Your task to perform on an android device: open chrome privacy settings Image 0: 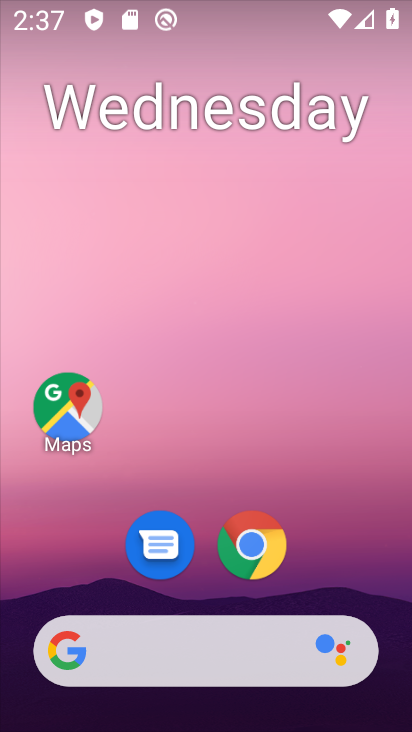
Step 0: press home button
Your task to perform on an android device: open chrome privacy settings Image 1: 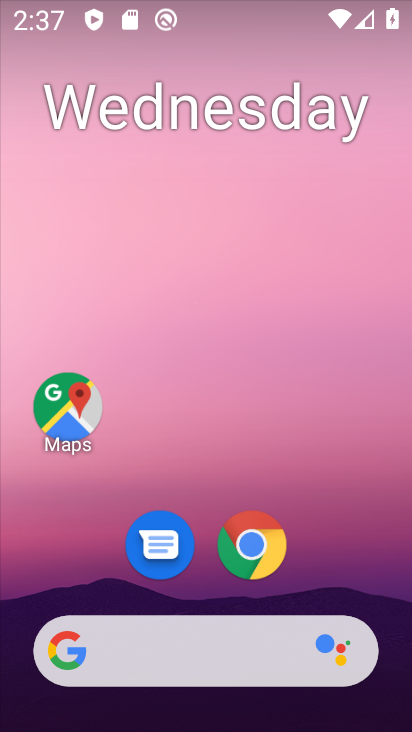
Step 1: drag from (284, 713) to (288, 279)
Your task to perform on an android device: open chrome privacy settings Image 2: 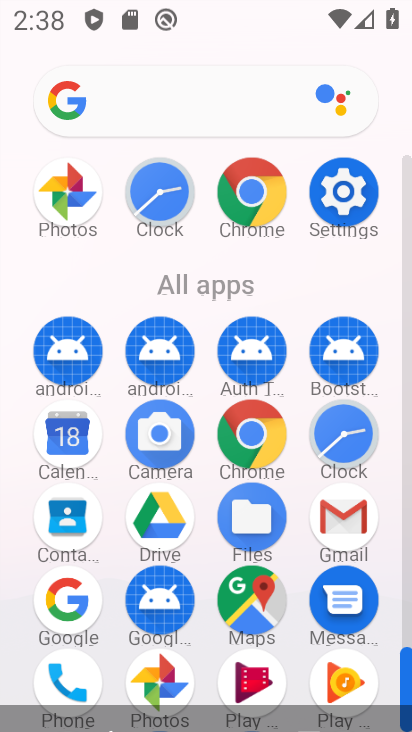
Step 2: click (259, 193)
Your task to perform on an android device: open chrome privacy settings Image 3: 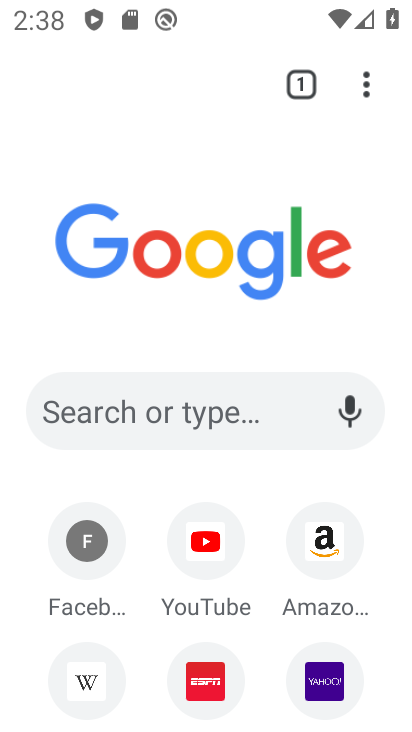
Step 3: click (356, 100)
Your task to perform on an android device: open chrome privacy settings Image 4: 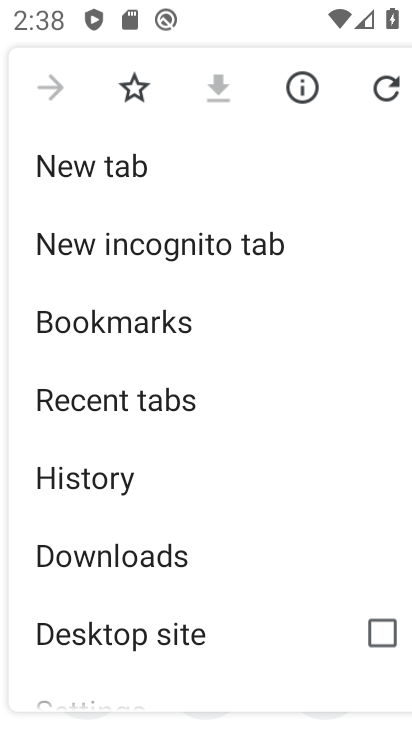
Step 4: drag from (143, 553) to (196, 271)
Your task to perform on an android device: open chrome privacy settings Image 5: 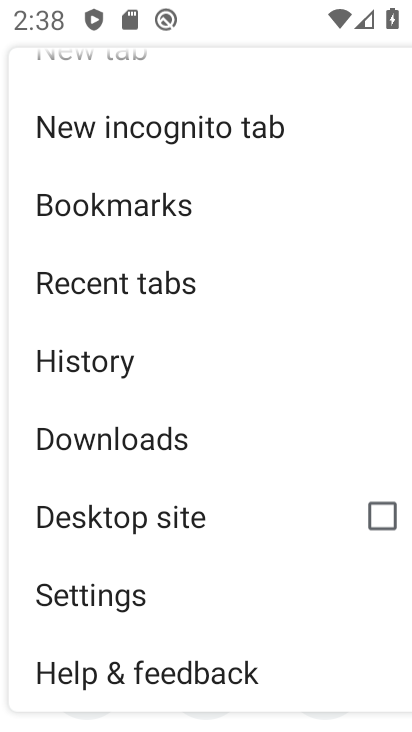
Step 5: click (97, 590)
Your task to perform on an android device: open chrome privacy settings Image 6: 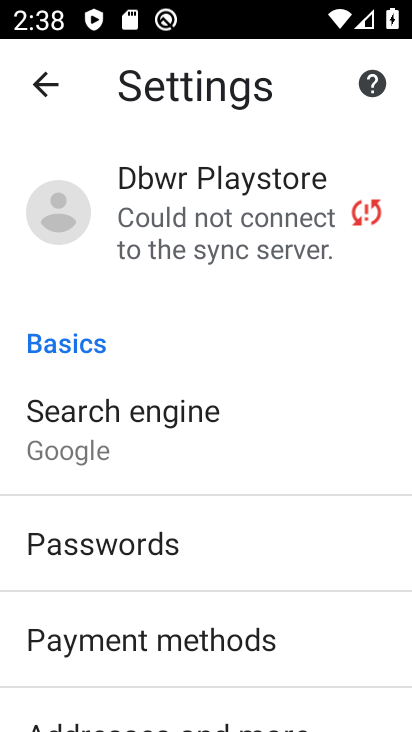
Step 6: drag from (70, 642) to (175, 311)
Your task to perform on an android device: open chrome privacy settings Image 7: 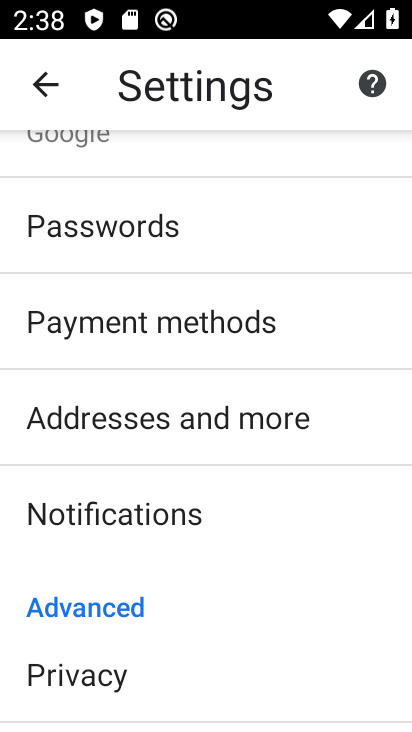
Step 7: click (117, 669)
Your task to perform on an android device: open chrome privacy settings Image 8: 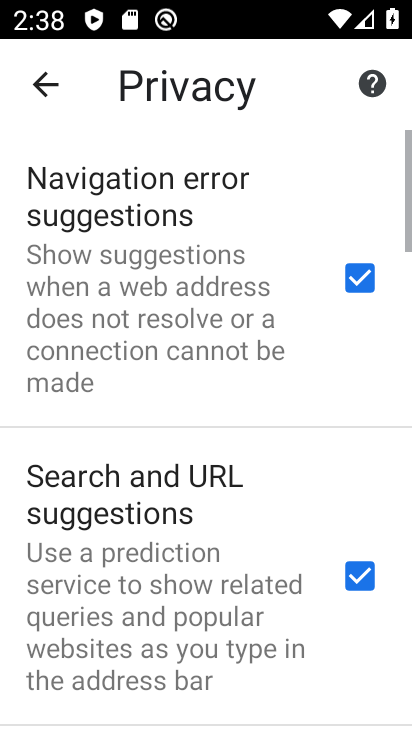
Step 8: task complete